Your task to perform on an android device: Go to eBay Image 0: 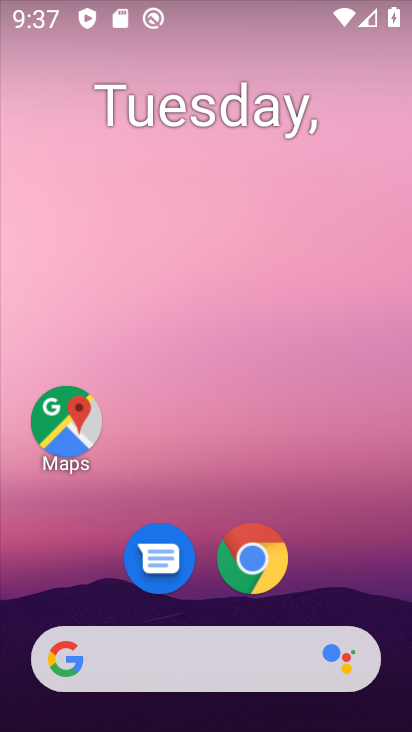
Step 0: drag from (317, 585) to (124, 146)
Your task to perform on an android device: Go to eBay Image 1: 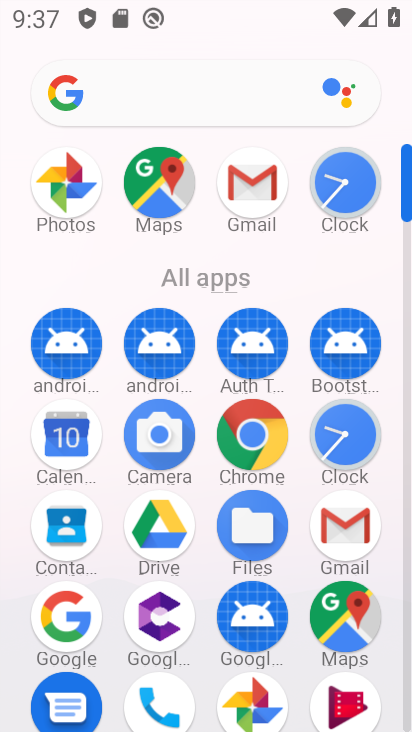
Step 1: click (263, 434)
Your task to perform on an android device: Go to eBay Image 2: 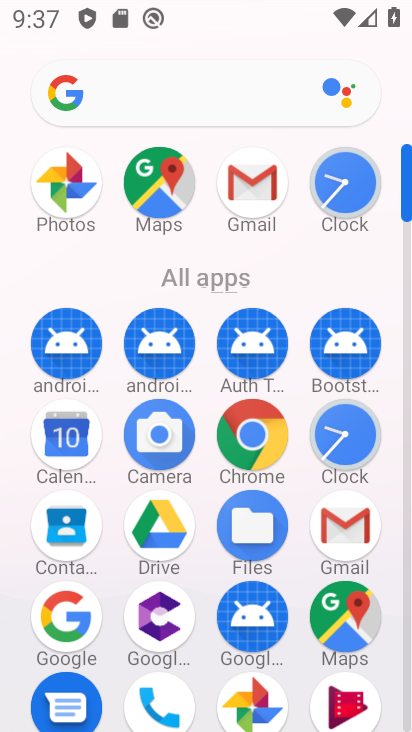
Step 2: click (243, 435)
Your task to perform on an android device: Go to eBay Image 3: 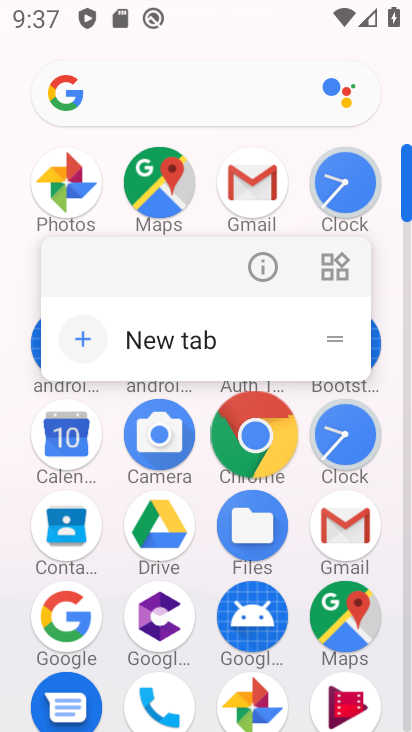
Step 3: click (246, 433)
Your task to perform on an android device: Go to eBay Image 4: 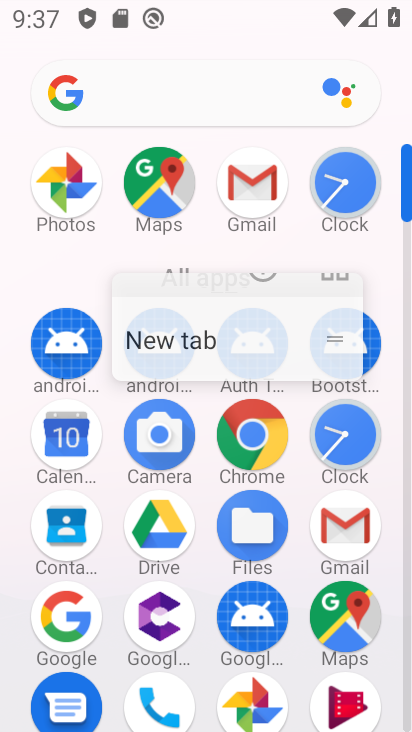
Step 4: click (246, 433)
Your task to perform on an android device: Go to eBay Image 5: 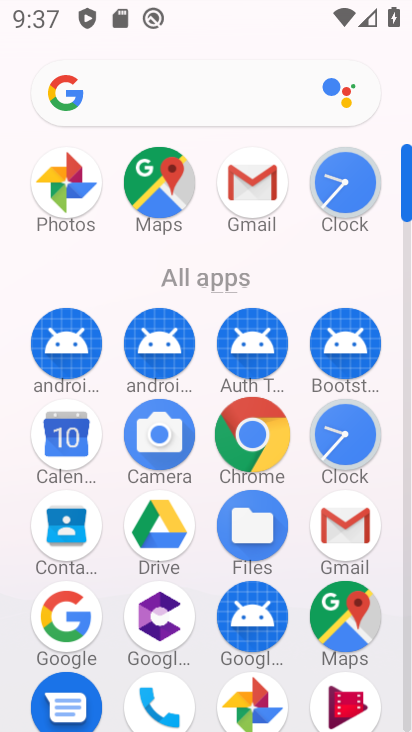
Step 5: click (246, 433)
Your task to perform on an android device: Go to eBay Image 6: 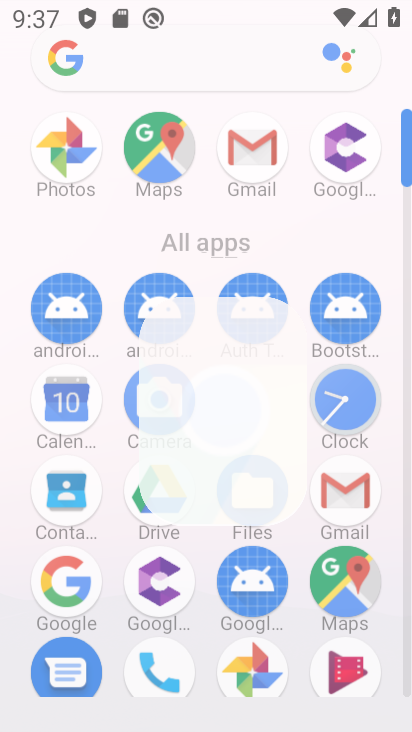
Step 6: click (247, 434)
Your task to perform on an android device: Go to eBay Image 7: 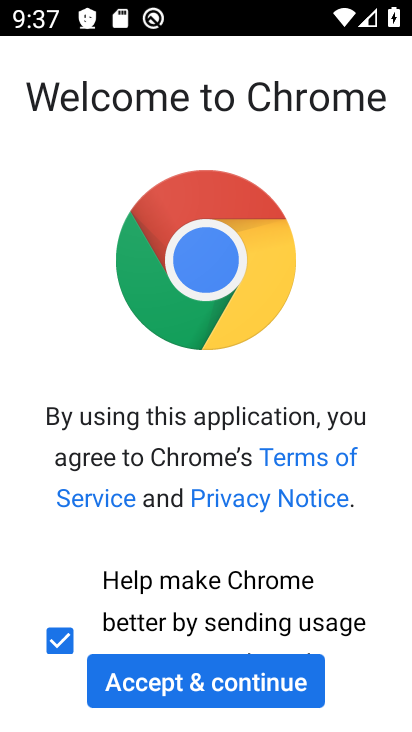
Step 7: click (210, 682)
Your task to perform on an android device: Go to eBay Image 8: 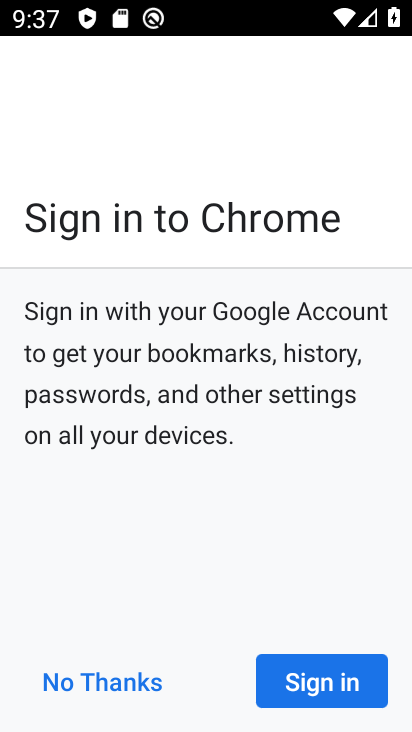
Step 8: click (210, 682)
Your task to perform on an android device: Go to eBay Image 9: 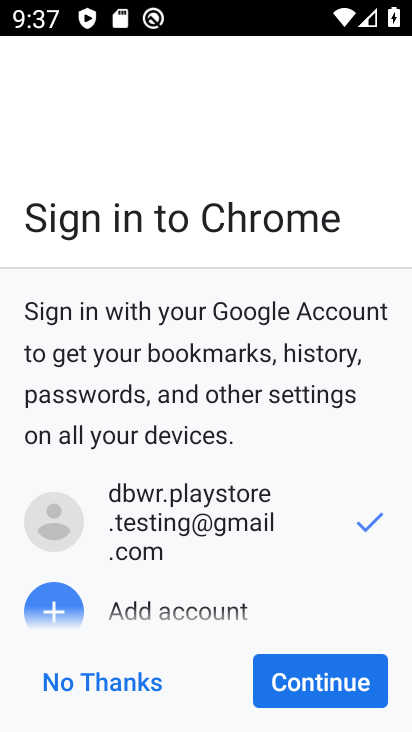
Step 9: click (327, 685)
Your task to perform on an android device: Go to eBay Image 10: 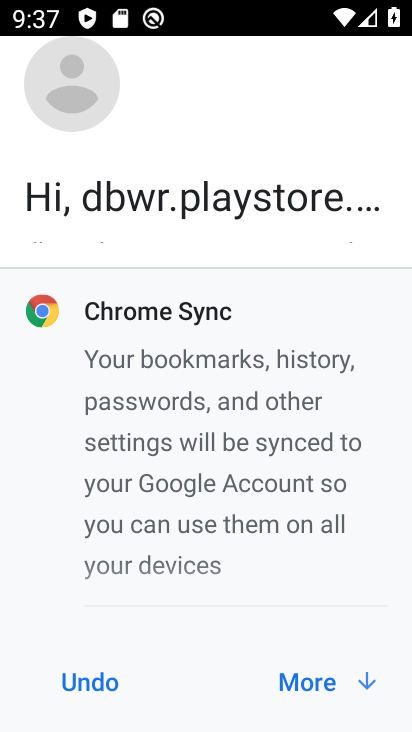
Step 10: click (328, 684)
Your task to perform on an android device: Go to eBay Image 11: 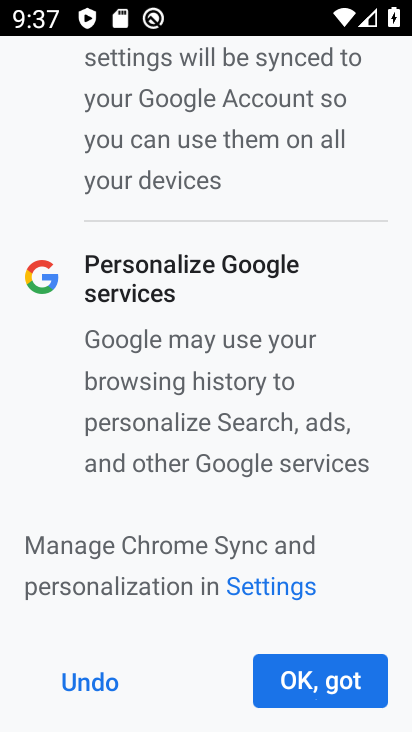
Step 11: click (328, 684)
Your task to perform on an android device: Go to eBay Image 12: 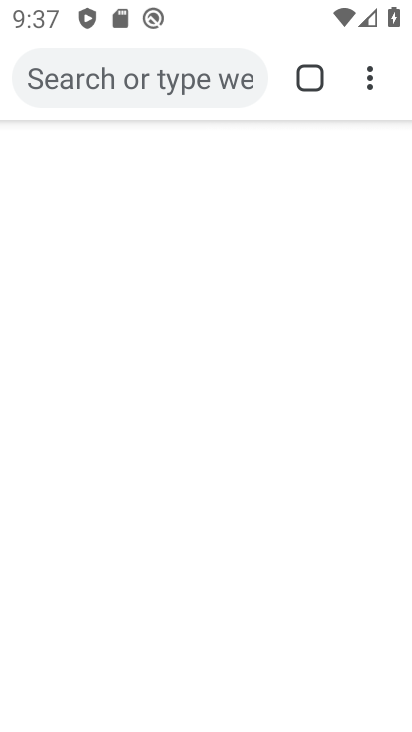
Step 12: click (317, 682)
Your task to perform on an android device: Go to eBay Image 13: 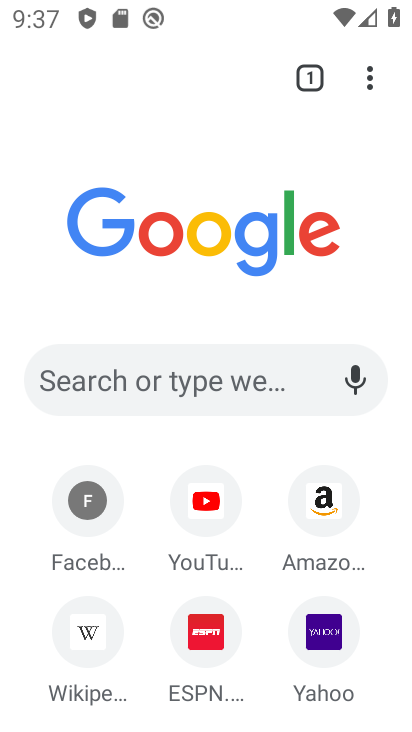
Step 13: drag from (366, 82) to (87, 158)
Your task to perform on an android device: Go to eBay Image 14: 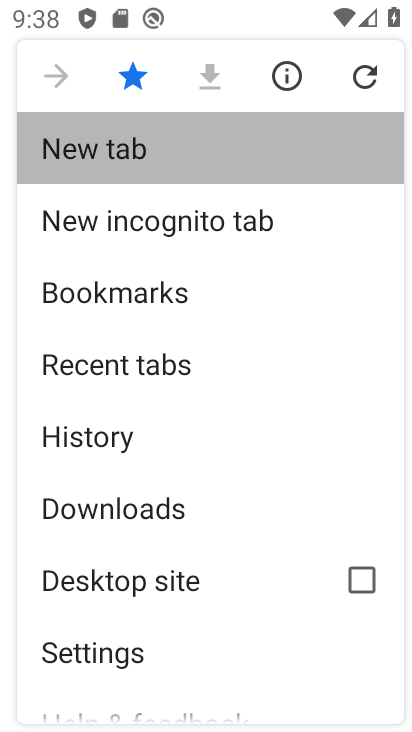
Step 14: click (87, 158)
Your task to perform on an android device: Go to eBay Image 15: 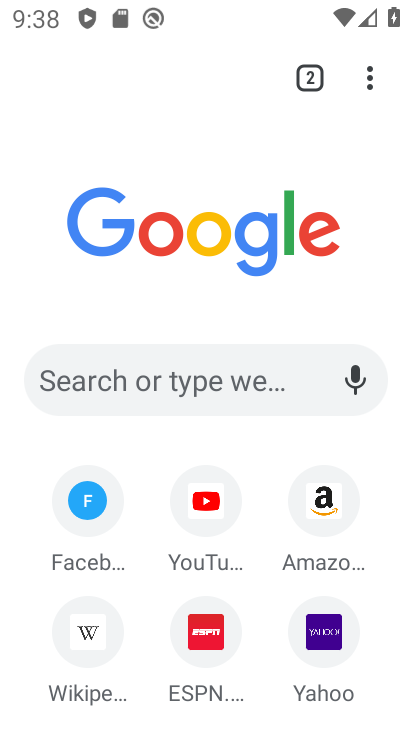
Step 15: click (99, 370)
Your task to perform on an android device: Go to eBay Image 16: 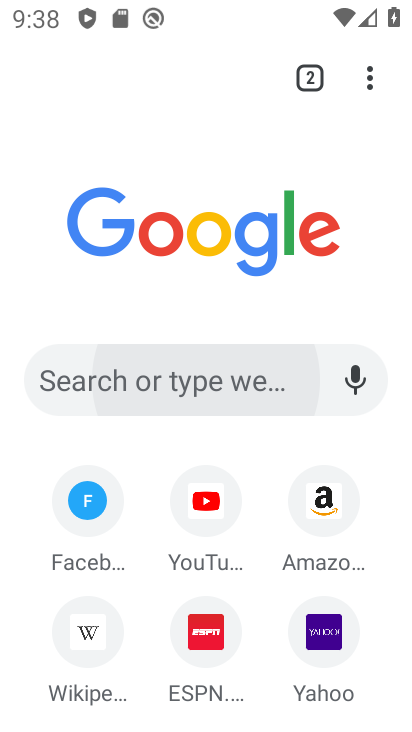
Step 16: click (96, 372)
Your task to perform on an android device: Go to eBay Image 17: 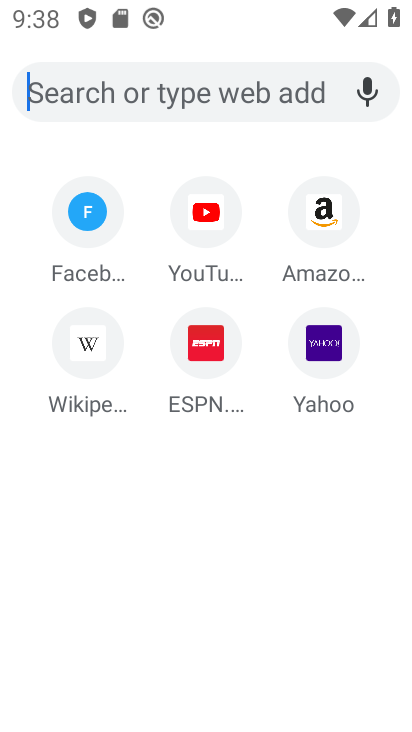
Step 17: click (95, 373)
Your task to perform on an android device: Go to eBay Image 18: 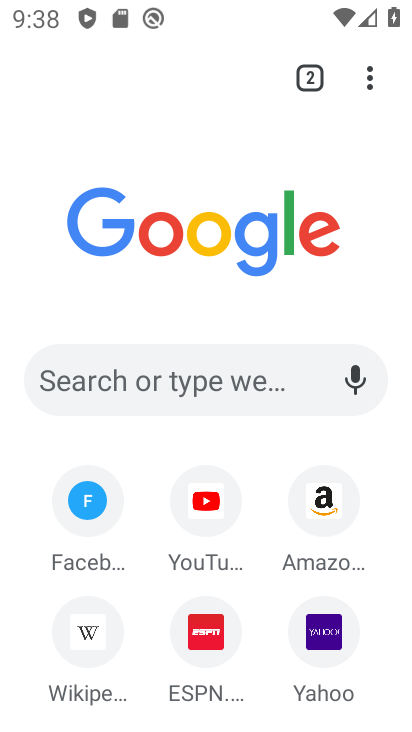
Step 18: click (131, 400)
Your task to perform on an android device: Go to eBay Image 19: 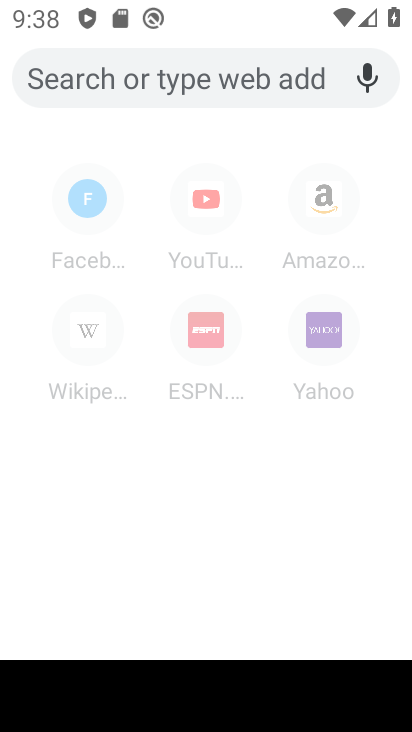
Step 19: click (134, 396)
Your task to perform on an android device: Go to eBay Image 20: 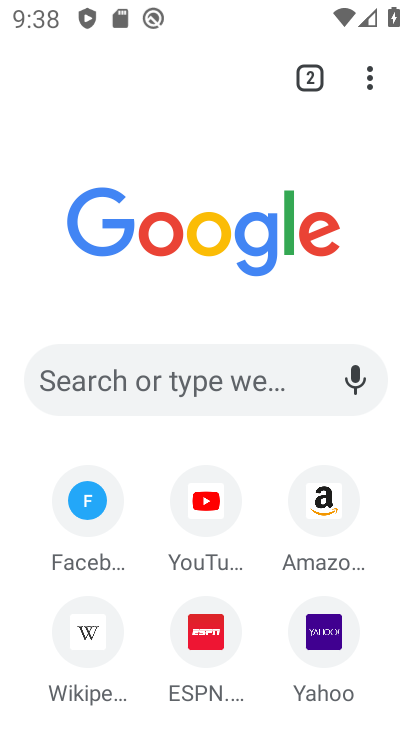
Step 20: type "ebay.com"
Your task to perform on an android device: Go to eBay Image 21: 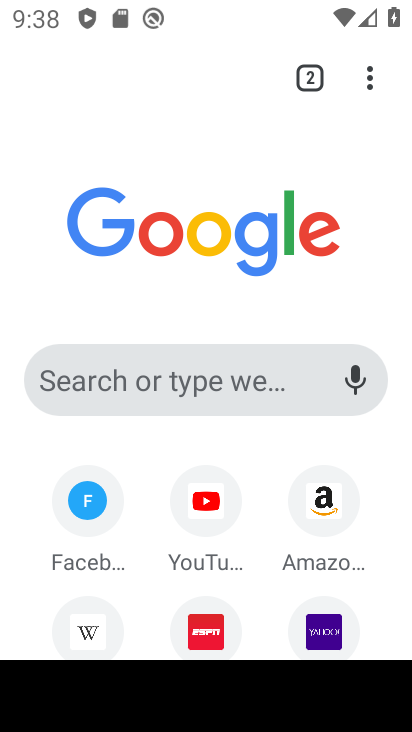
Step 21: click (119, 379)
Your task to perform on an android device: Go to eBay Image 22: 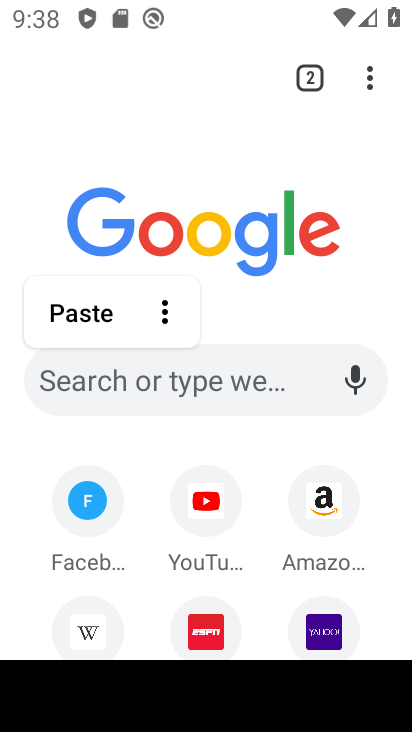
Step 22: type "ebay.com"
Your task to perform on an android device: Go to eBay Image 23: 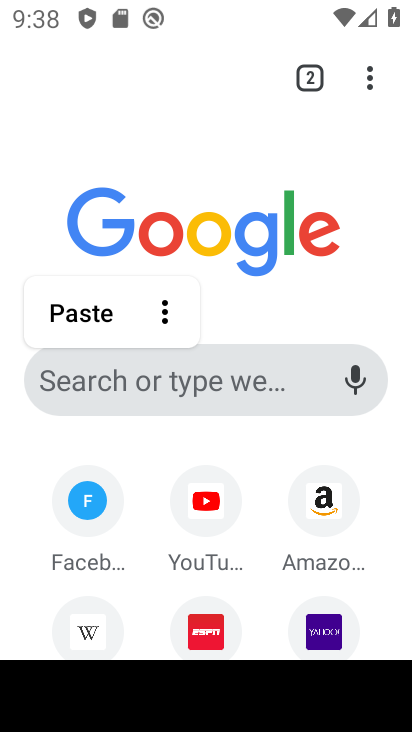
Step 23: click (67, 387)
Your task to perform on an android device: Go to eBay Image 24: 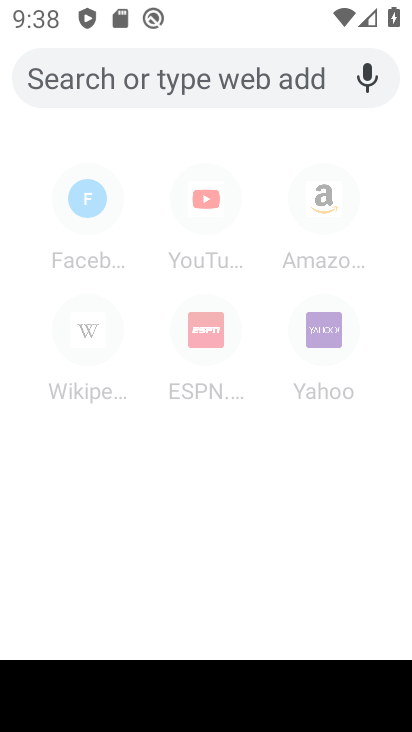
Step 24: click (102, 372)
Your task to perform on an android device: Go to eBay Image 25: 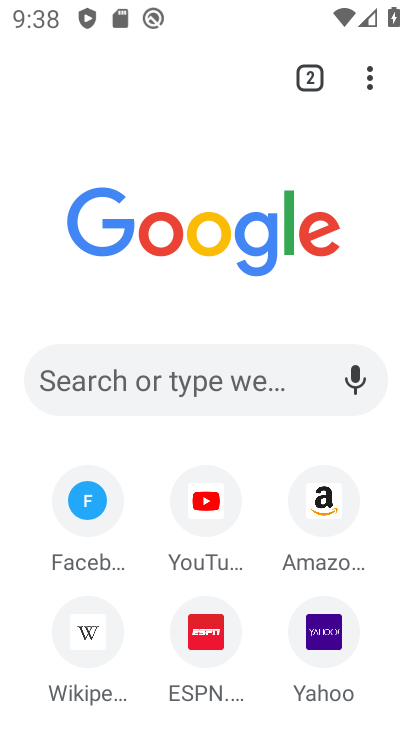
Step 25: click (87, 387)
Your task to perform on an android device: Go to eBay Image 26: 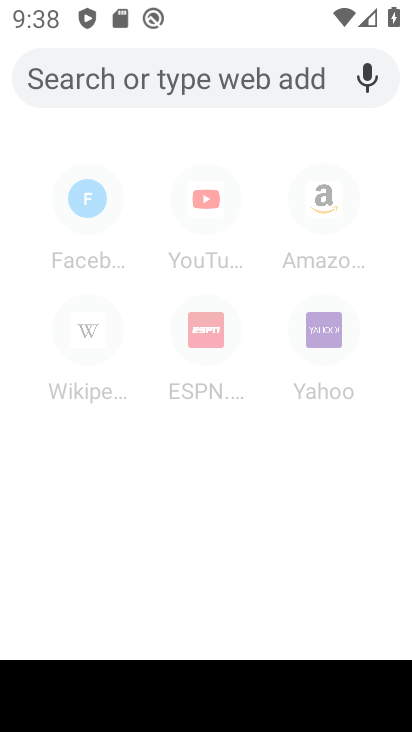
Step 26: click (82, 384)
Your task to perform on an android device: Go to eBay Image 27: 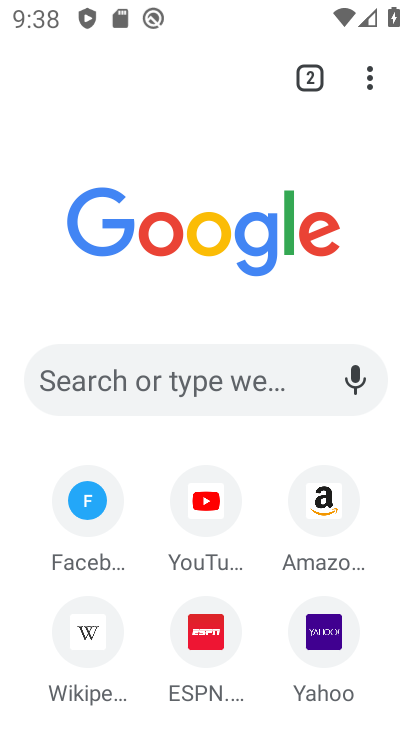
Step 27: click (67, 385)
Your task to perform on an android device: Go to eBay Image 28: 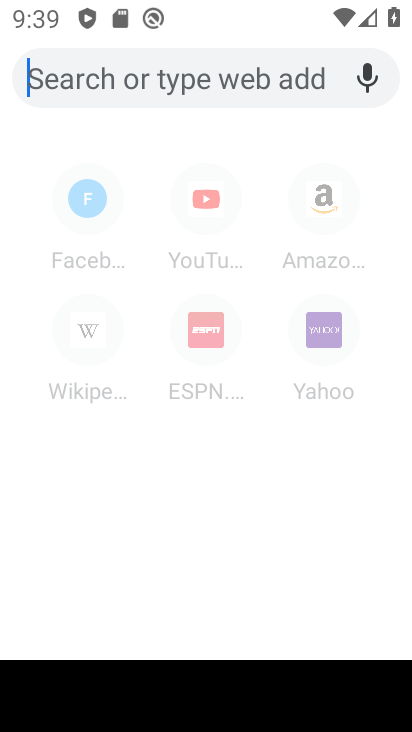
Step 28: type "ebay.com"
Your task to perform on an android device: Go to eBay Image 29: 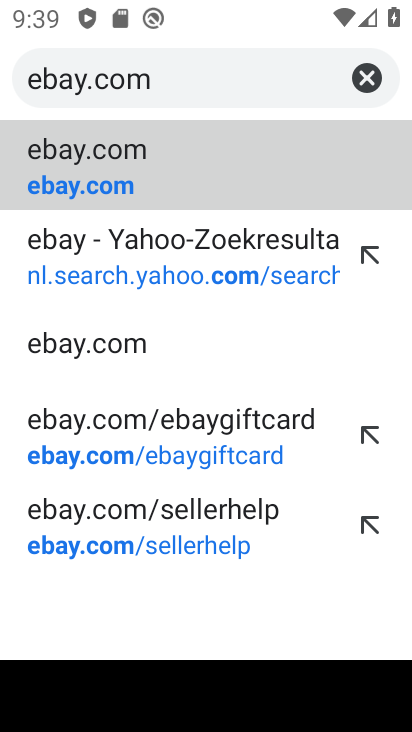
Step 29: click (93, 190)
Your task to perform on an android device: Go to eBay Image 30: 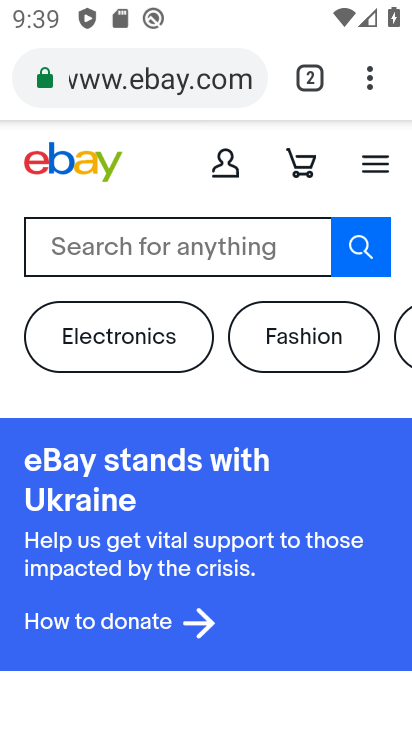
Step 30: task complete